Your task to perform on an android device: turn off location history Image 0: 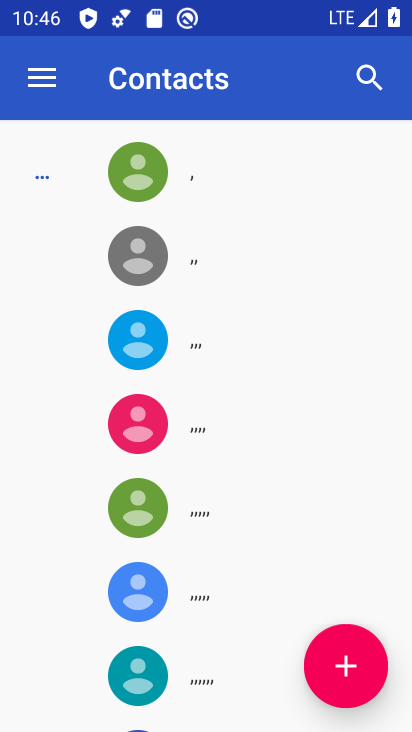
Step 0: press home button
Your task to perform on an android device: turn off location history Image 1: 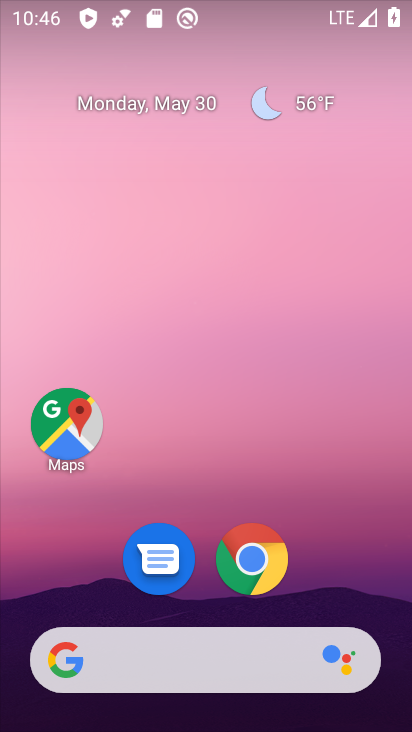
Step 1: drag from (367, 589) to (271, 292)
Your task to perform on an android device: turn off location history Image 2: 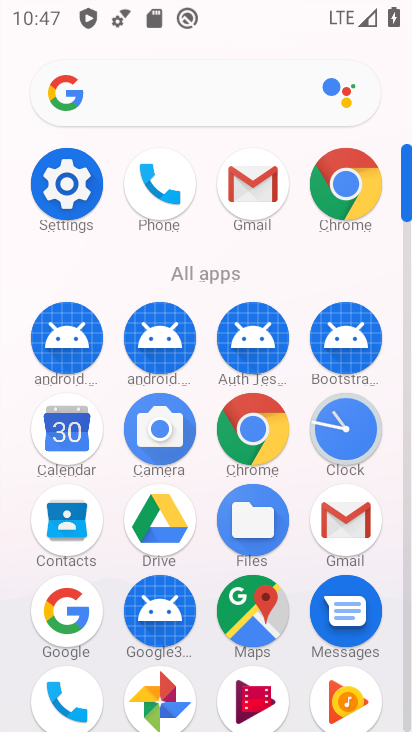
Step 2: click (66, 185)
Your task to perform on an android device: turn off location history Image 3: 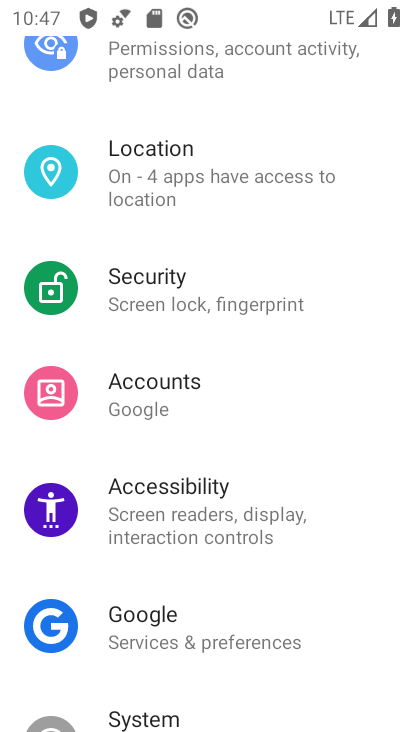
Step 3: press home button
Your task to perform on an android device: turn off location history Image 4: 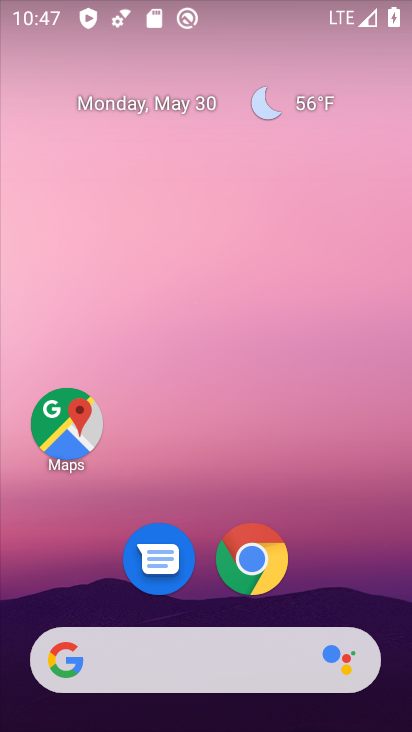
Step 4: click (57, 433)
Your task to perform on an android device: turn off location history Image 5: 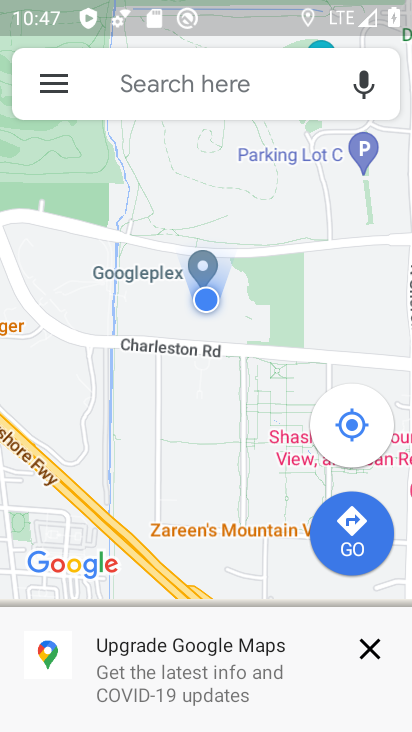
Step 5: click (50, 89)
Your task to perform on an android device: turn off location history Image 6: 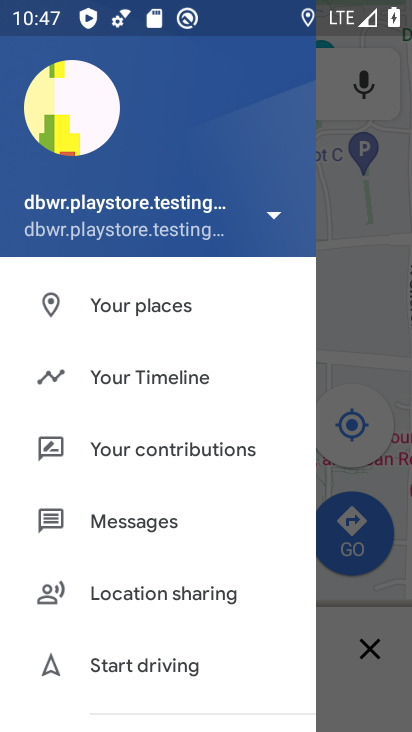
Step 6: click (186, 396)
Your task to perform on an android device: turn off location history Image 7: 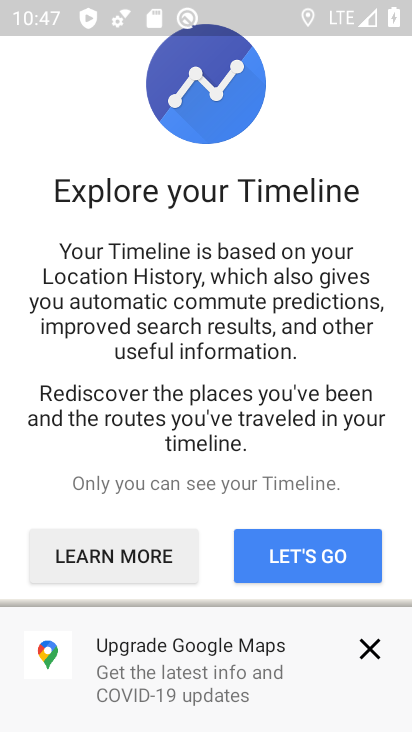
Step 7: click (375, 649)
Your task to perform on an android device: turn off location history Image 8: 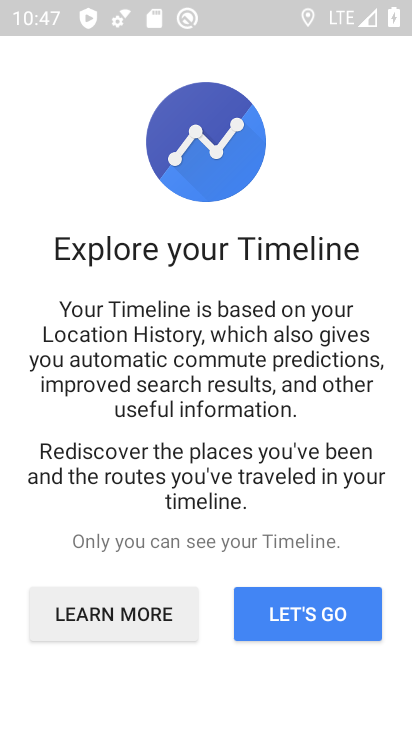
Step 8: click (351, 624)
Your task to perform on an android device: turn off location history Image 9: 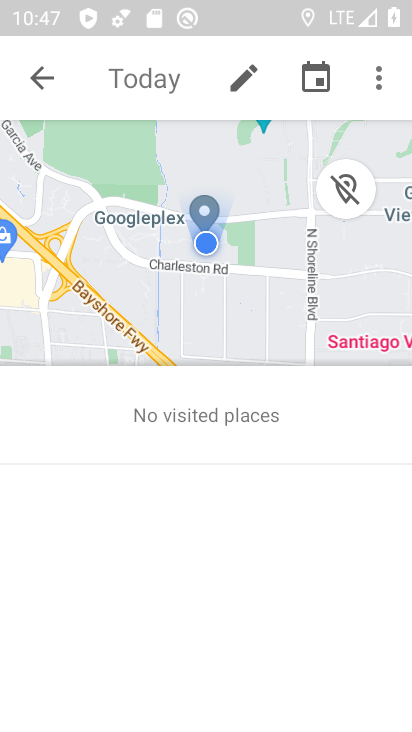
Step 9: click (383, 84)
Your task to perform on an android device: turn off location history Image 10: 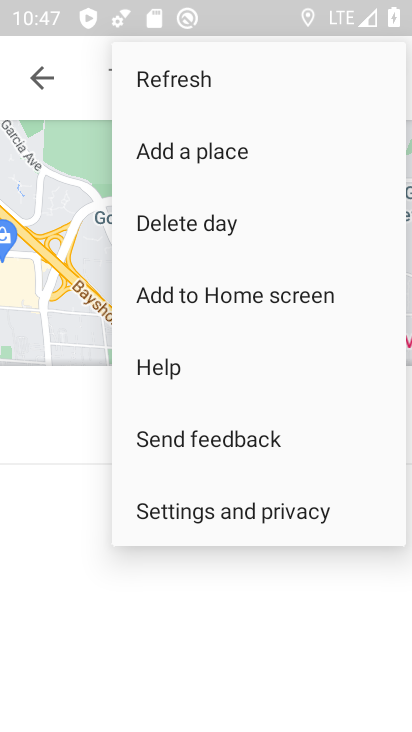
Step 10: click (261, 495)
Your task to perform on an android device: turn off location history Image 11: 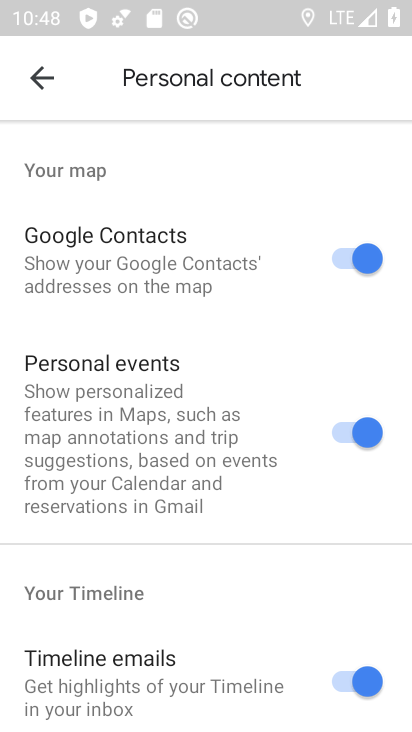
Step 11: task complete